Your task to perform on an android device: snooze an email in the gmail app Image 0: 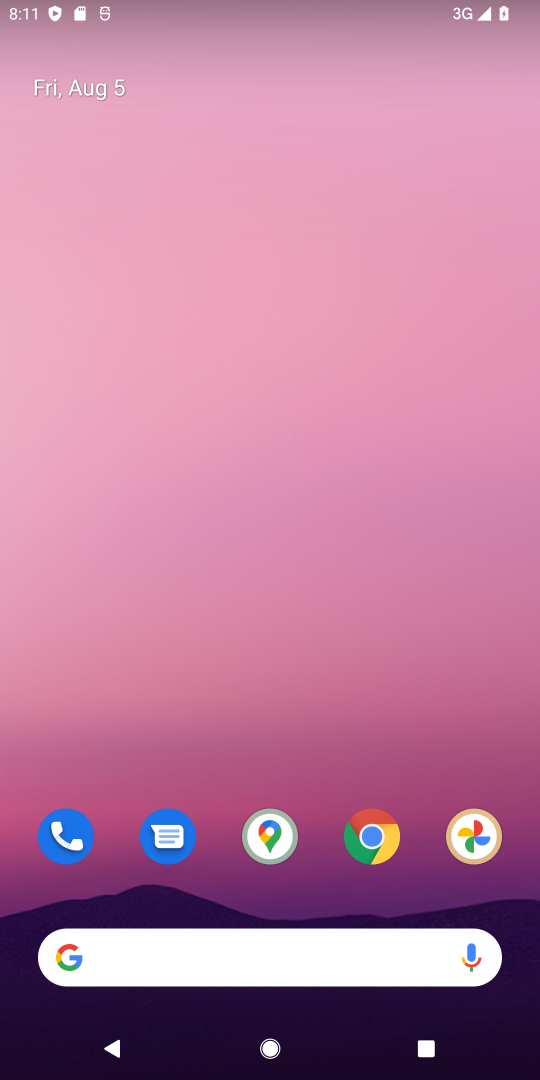
Step 0: drag from (284, 734) to (293, 16)
Your task to perform on an android device: snooze an email in the gmail app Image 1: 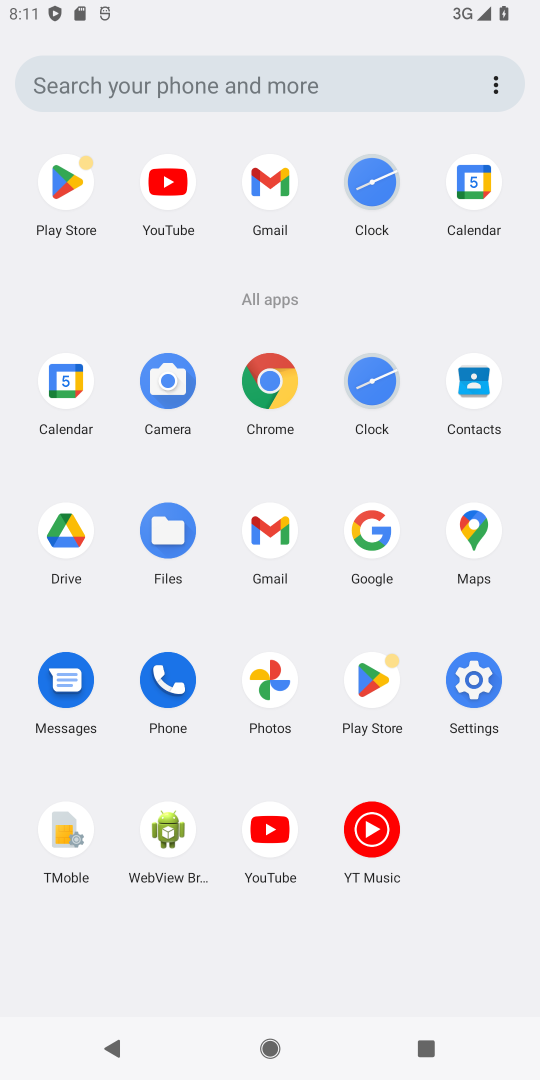
Step 1: click (264, 187)
Your task to perform on an android device: snooze an email in the gmail app Image 2: 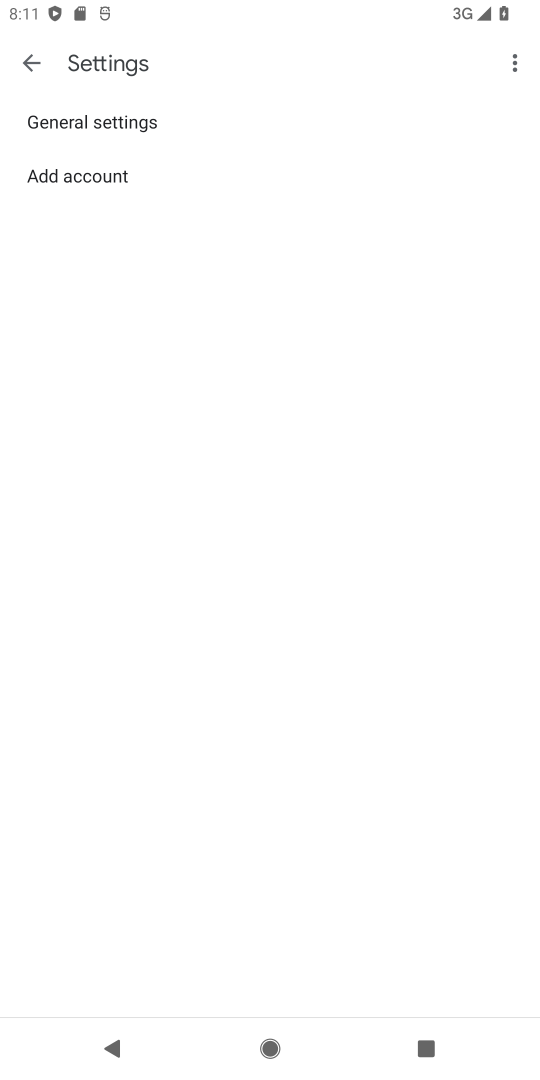
Step 2: click (34, 58)
Your task to perform on an android device: snooze an email in the gmail app Image 3: 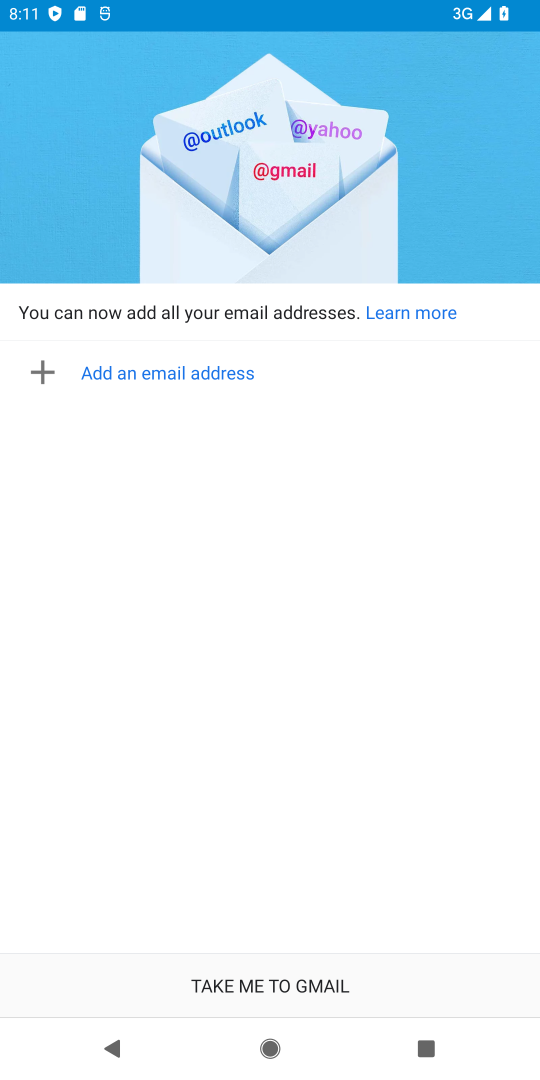
Step 3: click (267, 979)
Your task to perform on an android device: snooze an email in the gmail app Image 4: 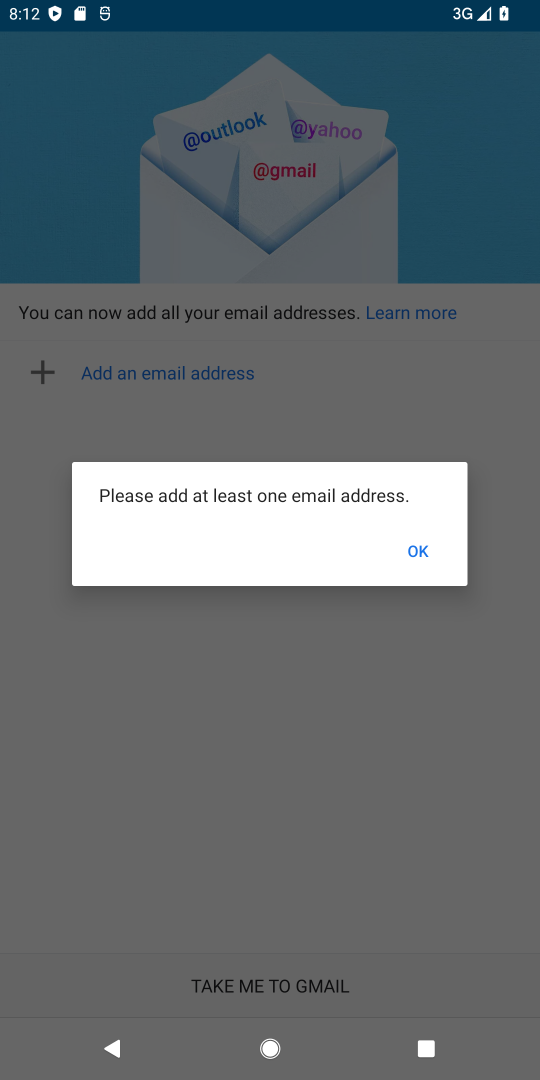
Step 4: click (413, 539)
Your task to perform on an android device: snooze an email in the gmail app Image 5: 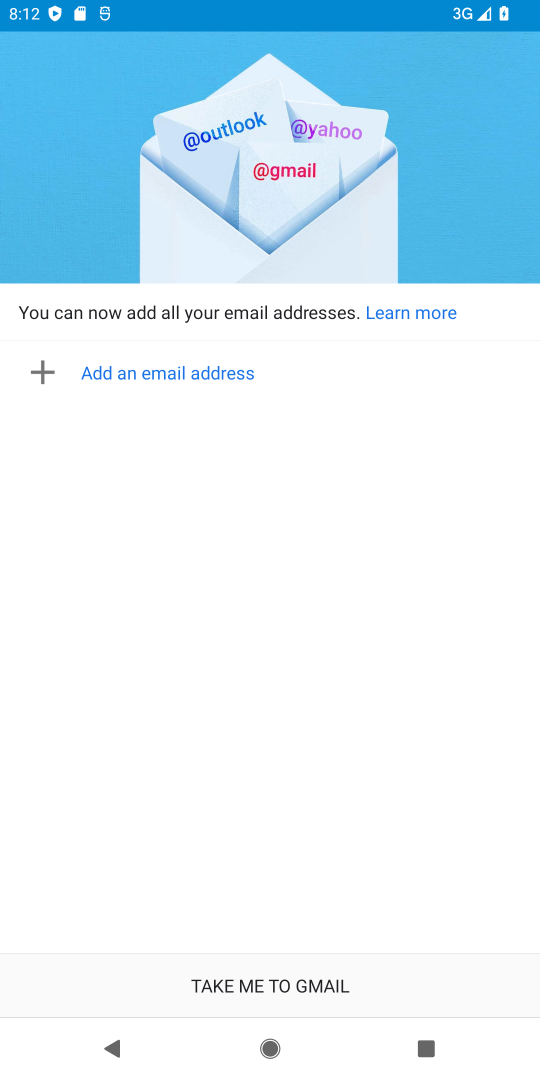
Step 5: task complete